Your task to perform on an android device: Go to privacy settings Image 0: 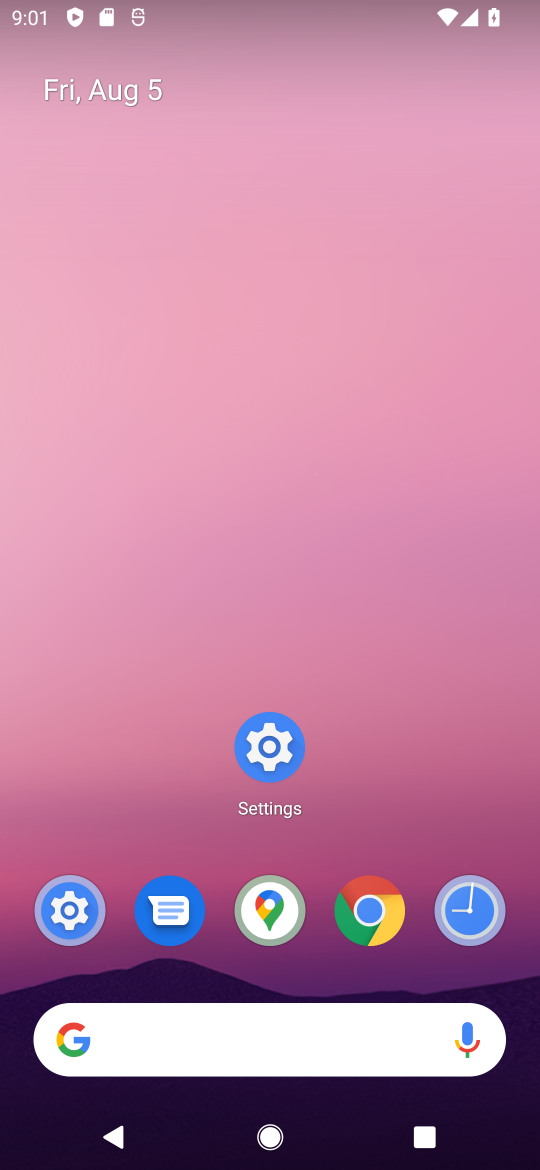
Step 0: press home button
Your task to perform on an android device: Go to privacy settings Image 1: 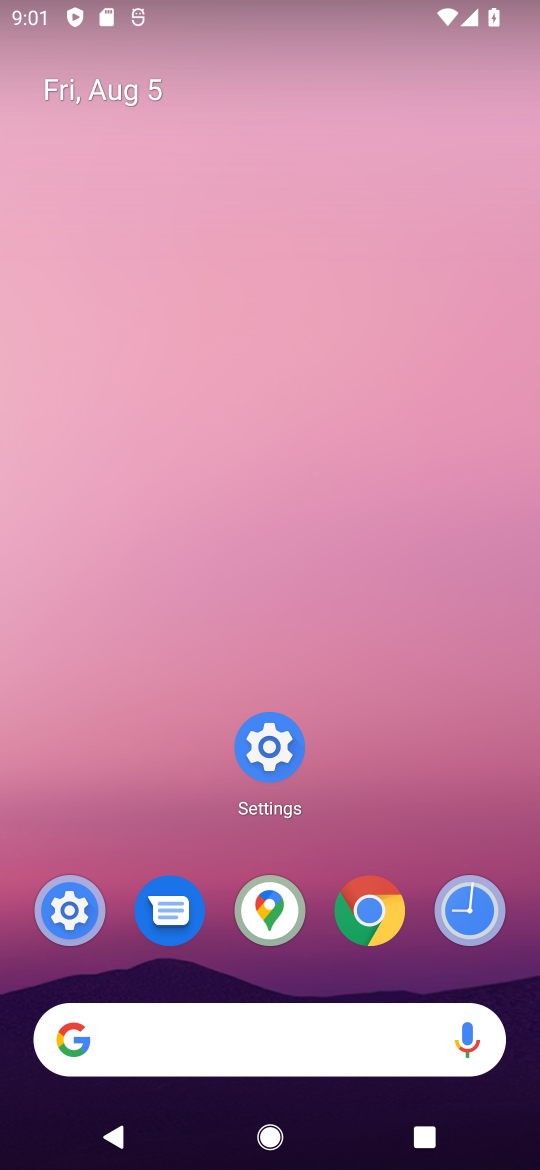
Step 1: click (280, 733)
Your task to perform on an android device: Go to privacy settings Image 2: 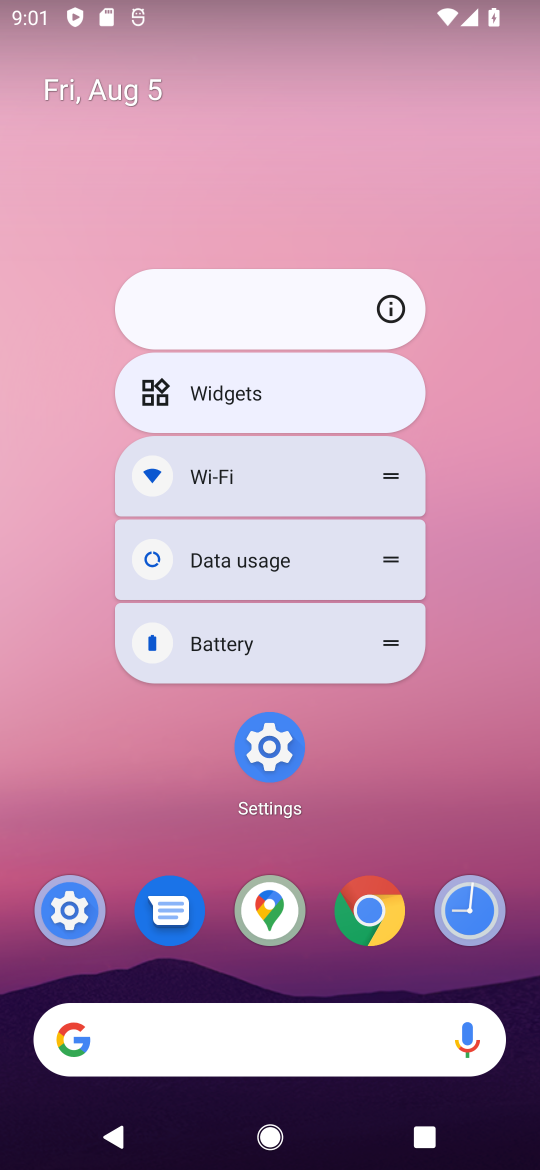
Step 2: click (271, 745)
Your task to perform on an android device: Go to privacy settings Image 3: 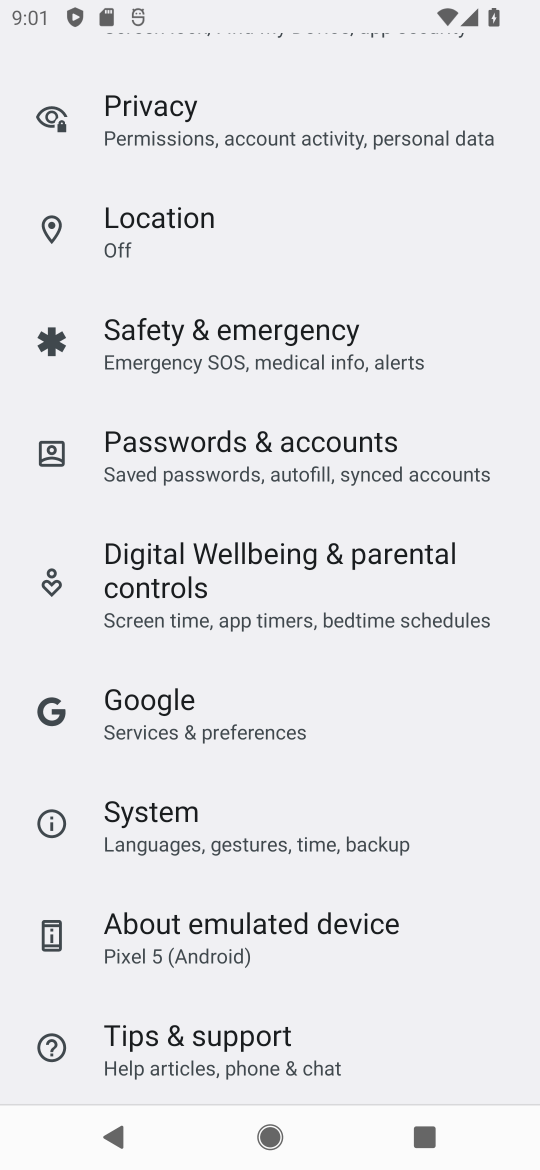
Step 3: click (158, 106)
Your task to perform on an android device: Go to privacy settings Image 4: 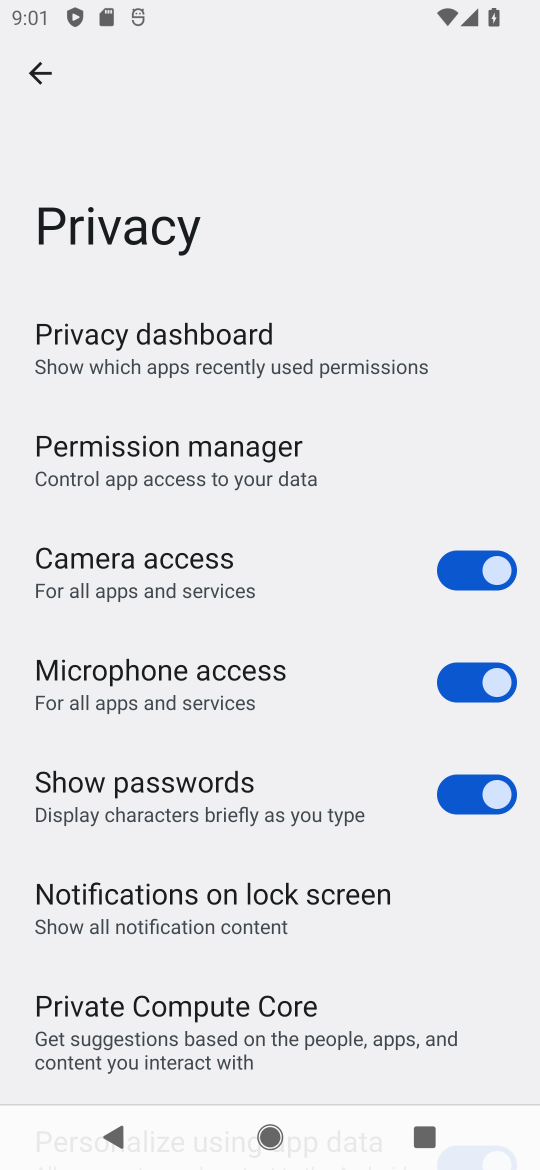
Step 4: task complete